Your task to perform on an android device: Search for usb-a on bestbuy.com, select the first entry, and add it to the cart. Image 0: 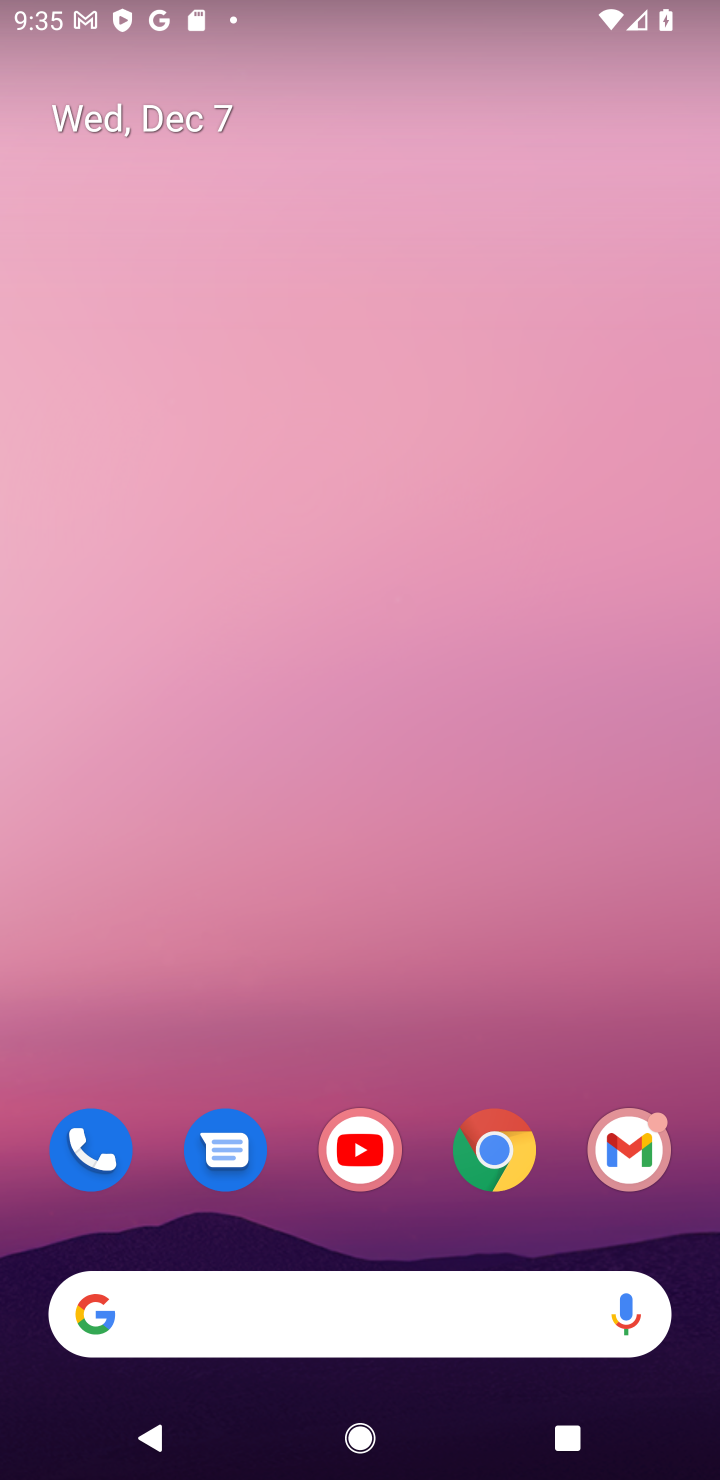
Step 0: click (496, 1150)
Your task to perform on an android device: Search for usb-a on bestbuy.com, select the first entry, and add it to the cart. Image 1: 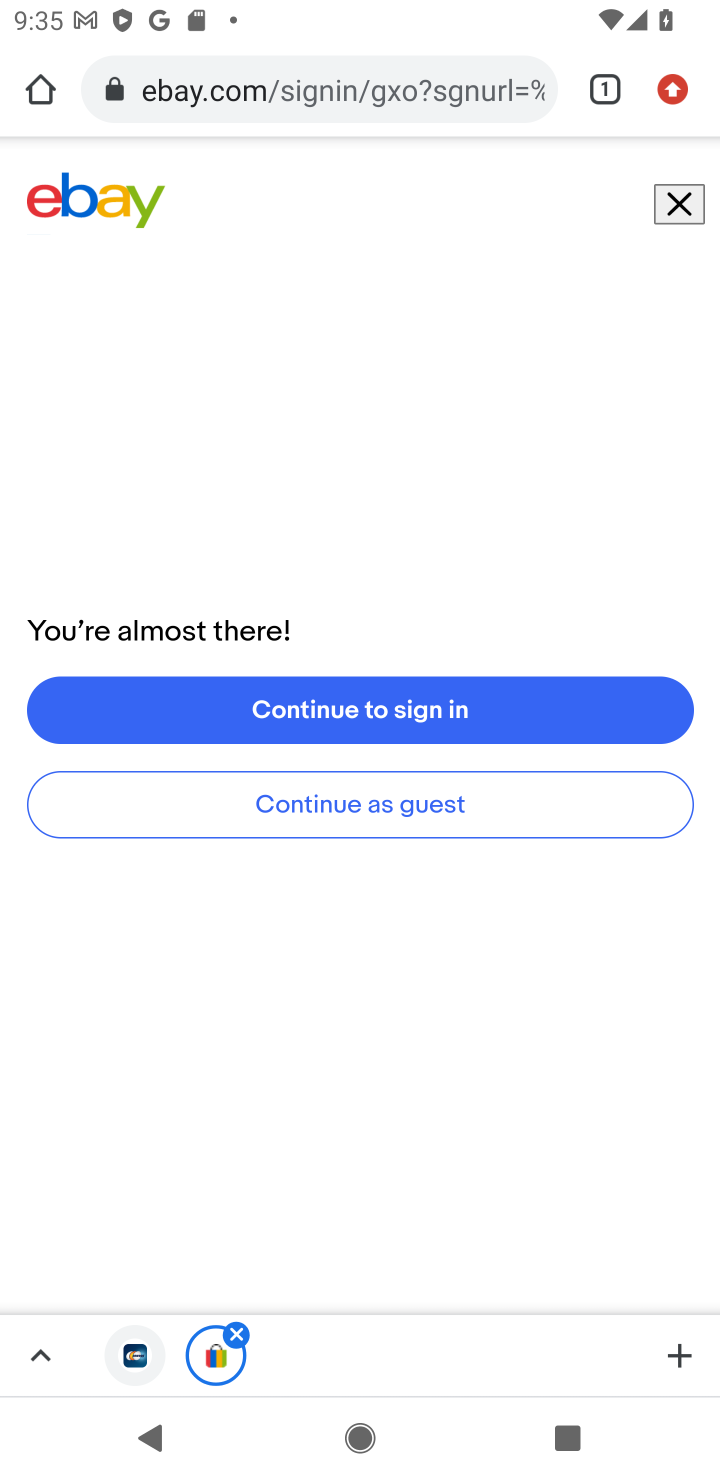
Step 1: click (350, 77)
Your task to perform on an android device: Search for usb-a on bestbuy.com, select the first entry, and add it to the cart. Image 2: 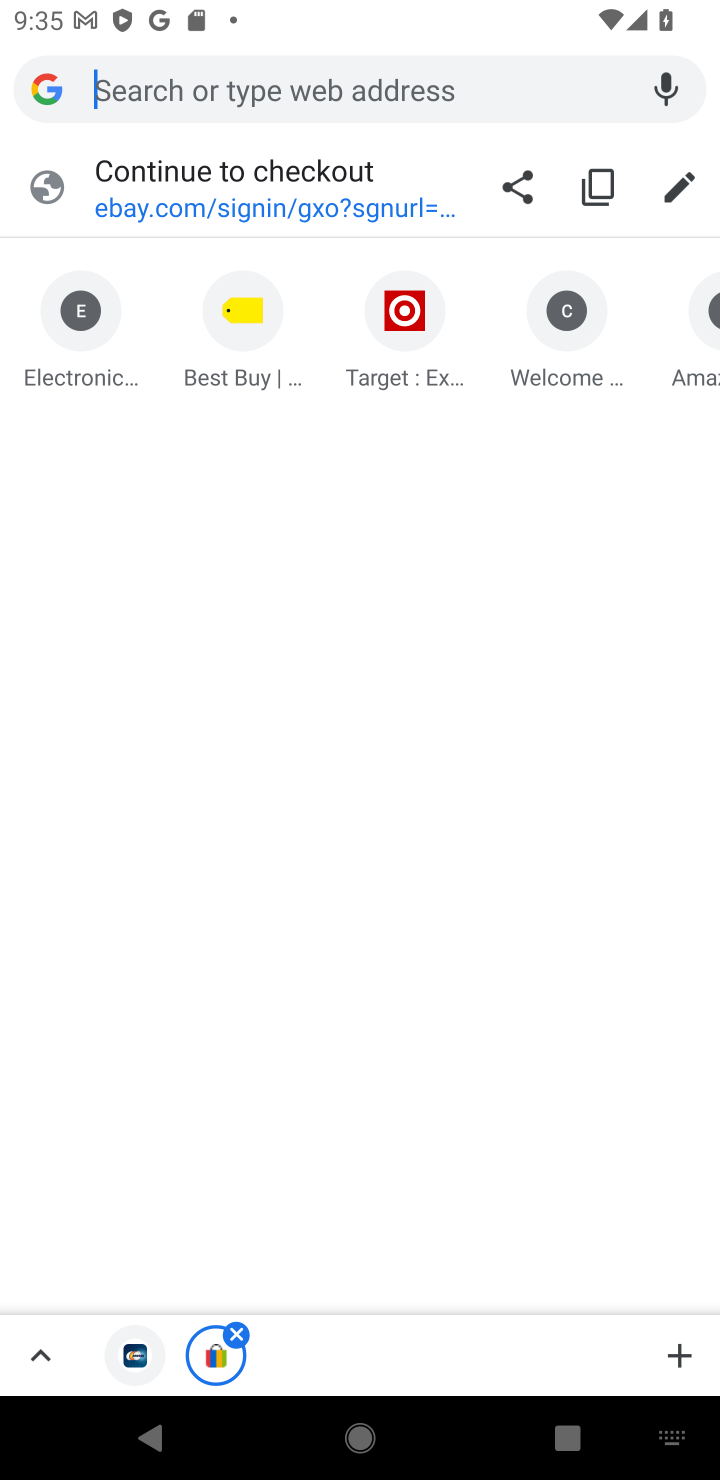
Step 2: type "bestbuy.com"
Your task to perform on an android device: Search for usb-a on bestbuy.com, select the first entry, and add it to the cart. Image 3: 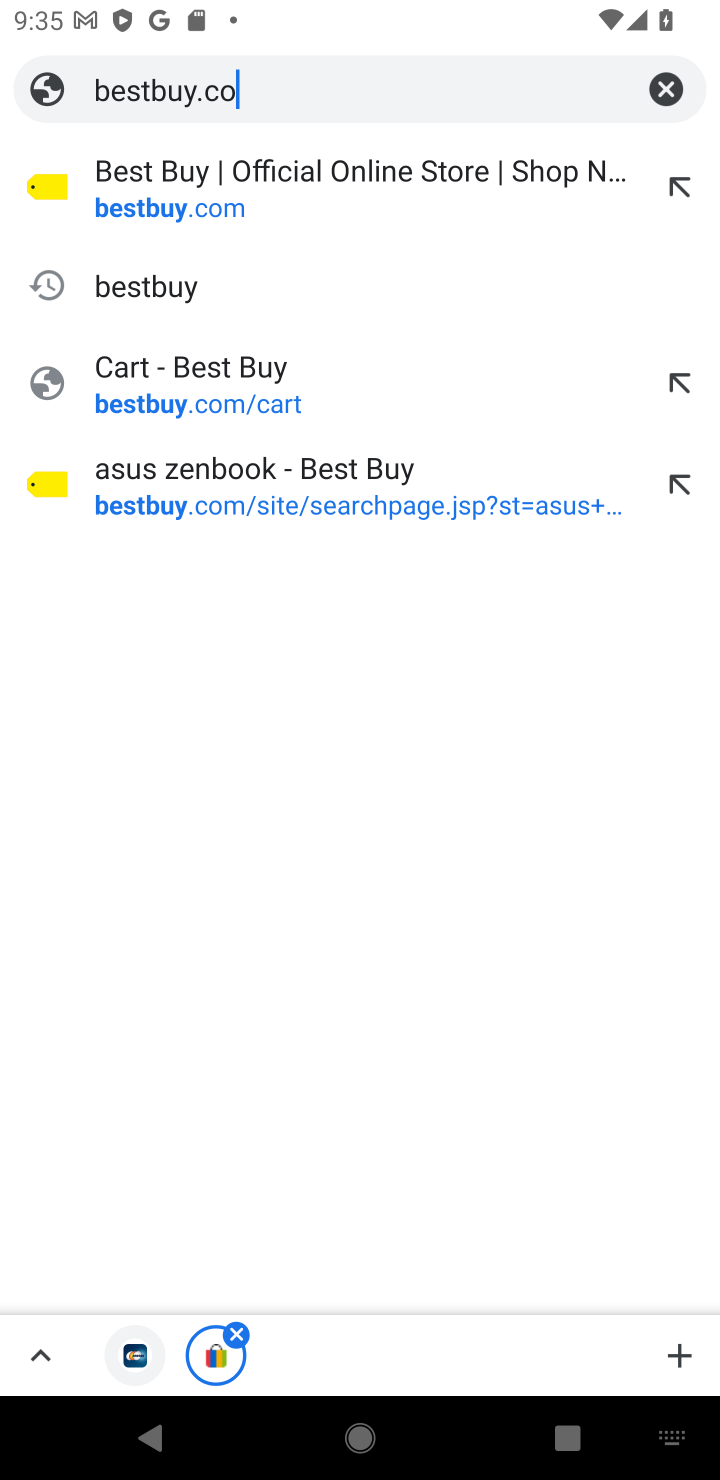
Step 3: press enter
Your task to perform on an android device: Search for usb-a on bestbuy.com, select the first entry, and add it to the cart. Image 4: 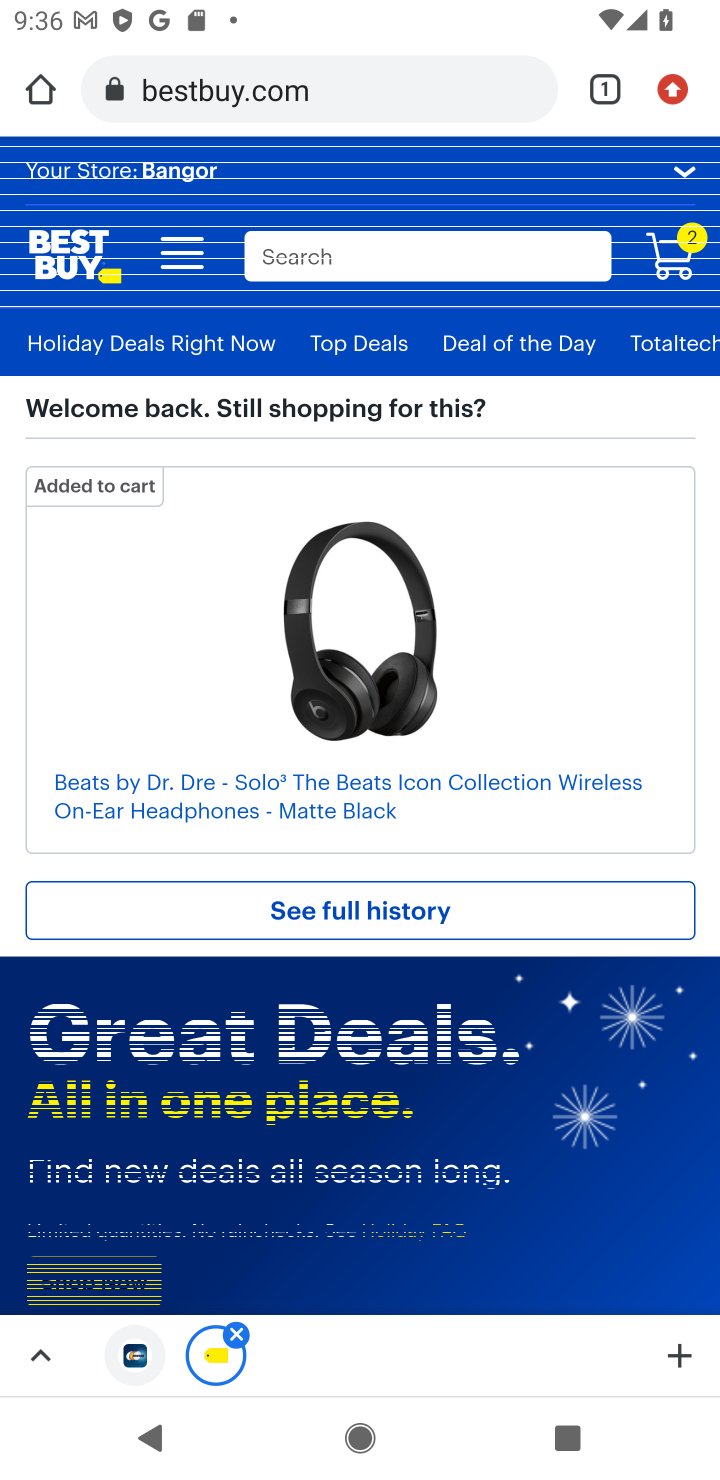
Step 4: click (401, 249)
Your task to perform on an android device: Search for usb-a on bestbuy.com, select the first entry, and add it to the cart. Image 5: 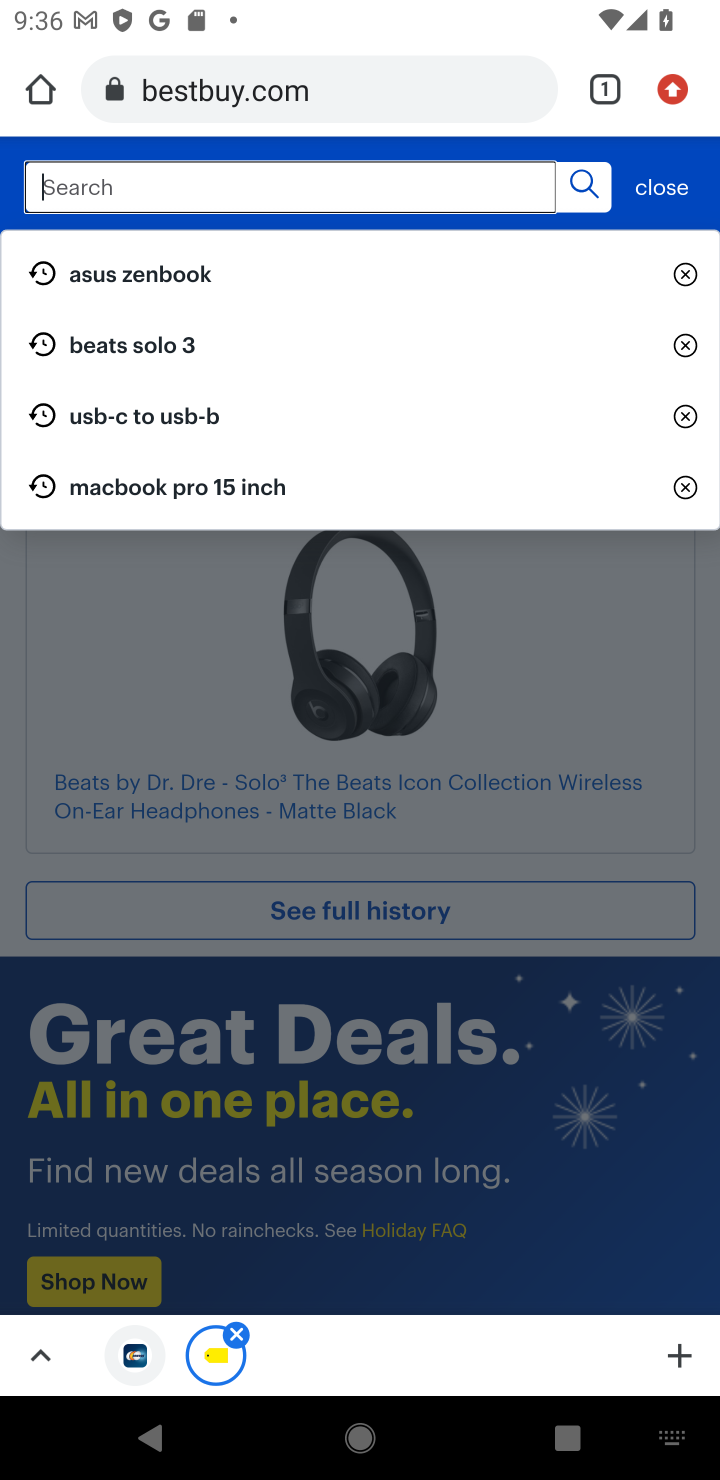
Step 5: type " usb-a"
Your task to perform on an android device: Search for usb-a on bestbuy.com, select the first entry, and add it to the cart. Image 6: 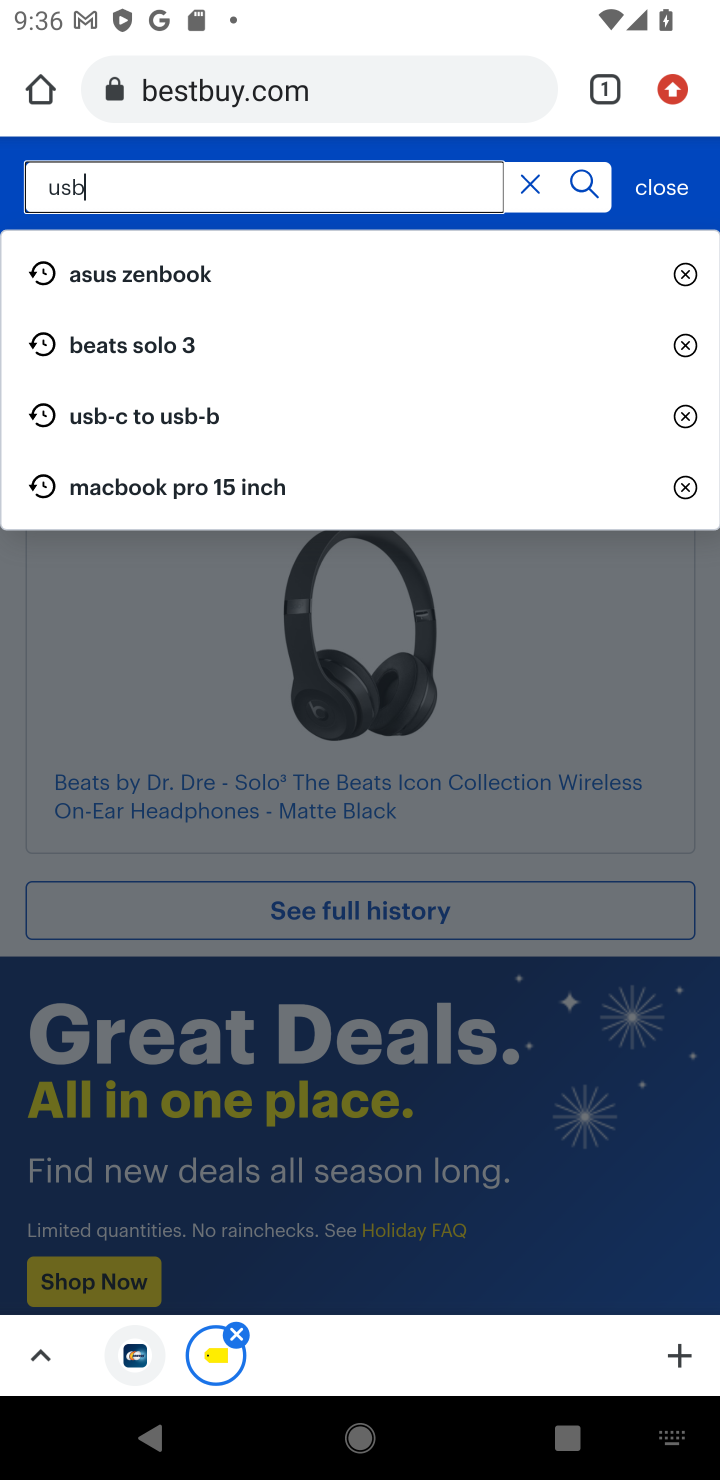
Step 6: press enter
Your task to perform on an android device: Search for usb-a on bestbuy.com, select the first entry, and add it to the cart. Image 7: 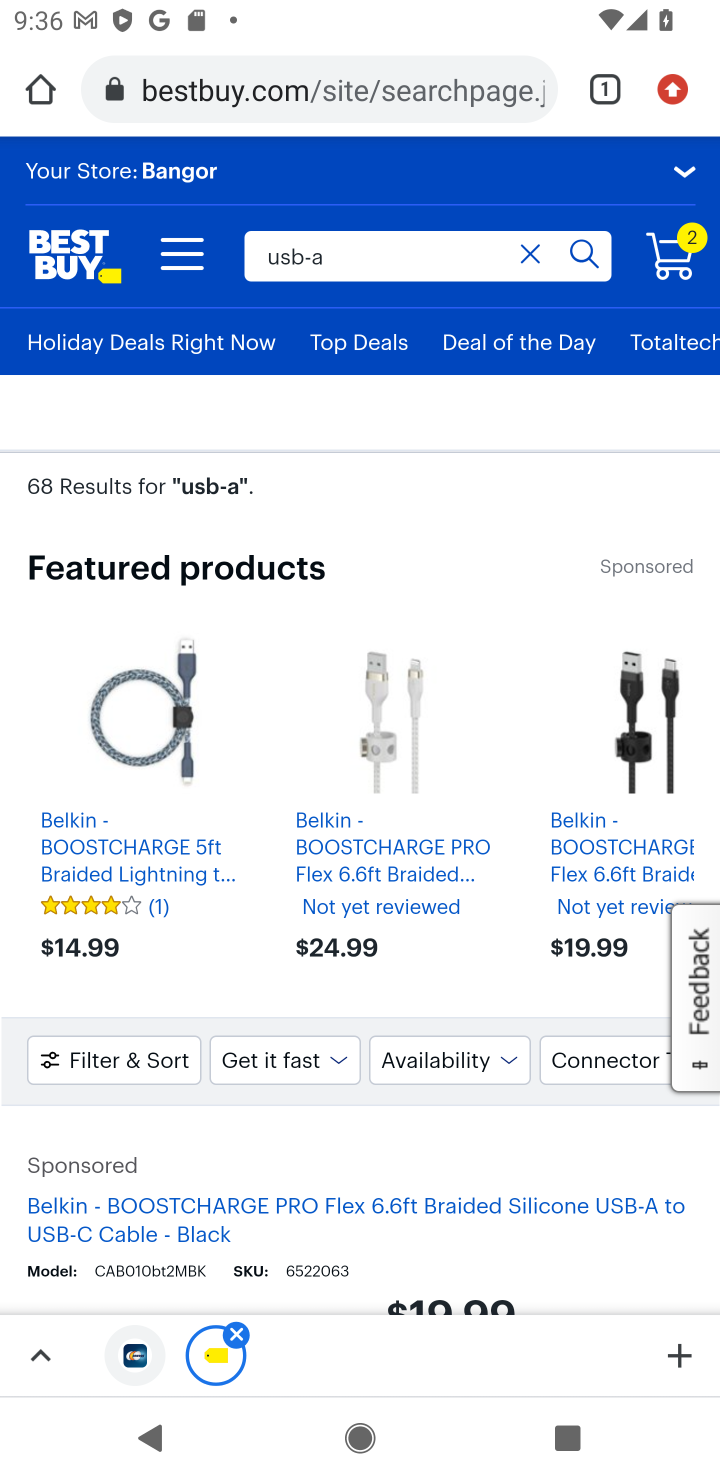
Step 7: drag from (616, 1184) to (595, 542)
Your task to perform on an android device: Search for usb-a on bestbuy.com, select the first entry, and add it to the cart. Image 8: 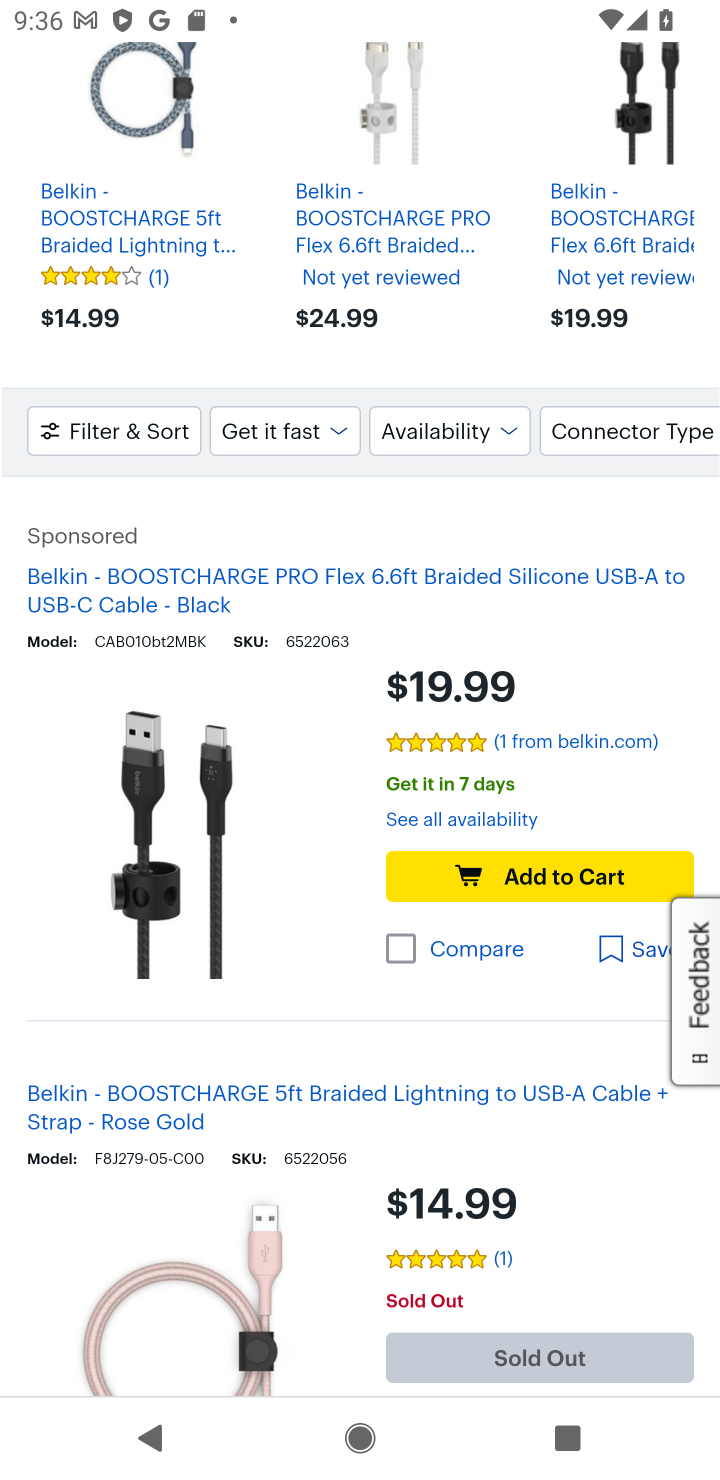
Step 8: click (154, 1275)
Your task to perform on an android device: Search for usb-a on bestbuy.com, select the first entry, and add it to the cart. Image 9: 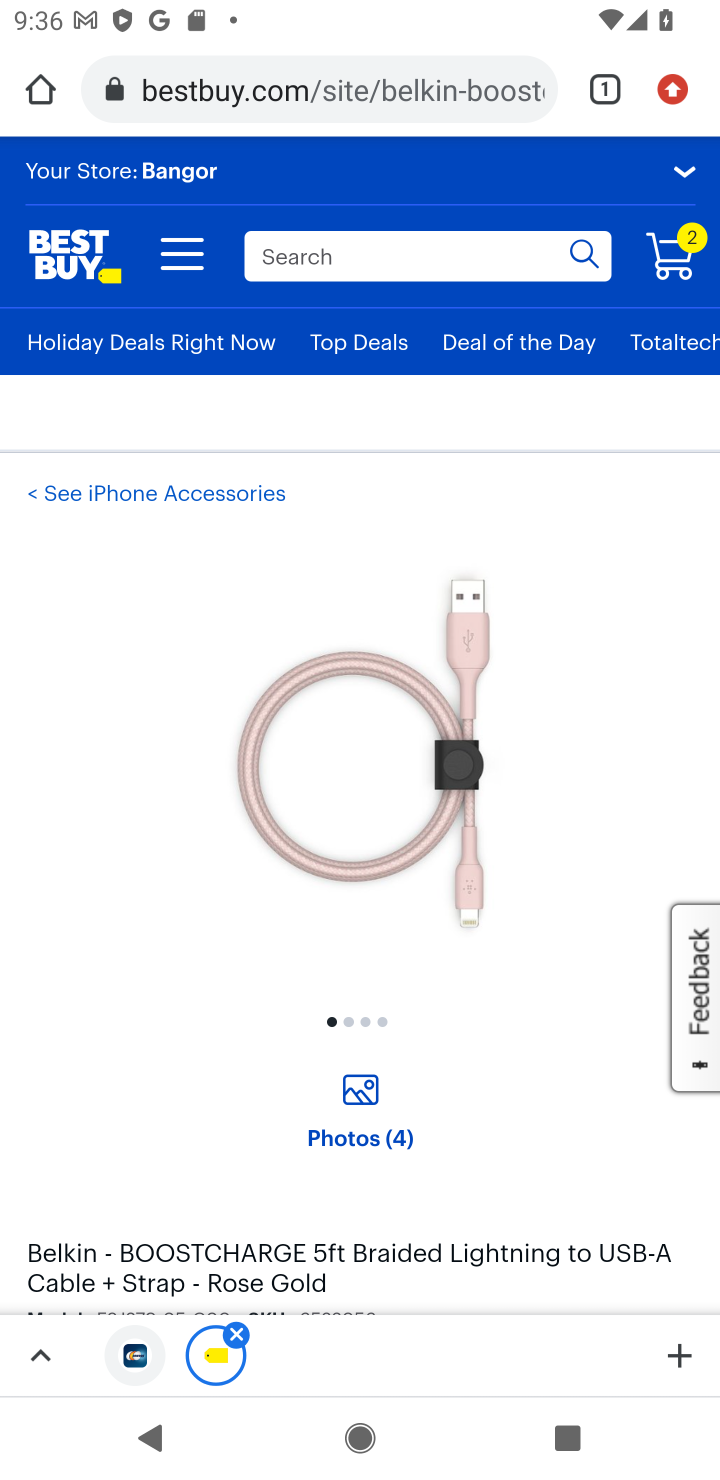
Step 9: drag from (532, 1086) to (563, 316)
Your task to perform on an android device: Search for usb-a on bestbuy.com, select the first entry, and add it to the cart. Image 10: 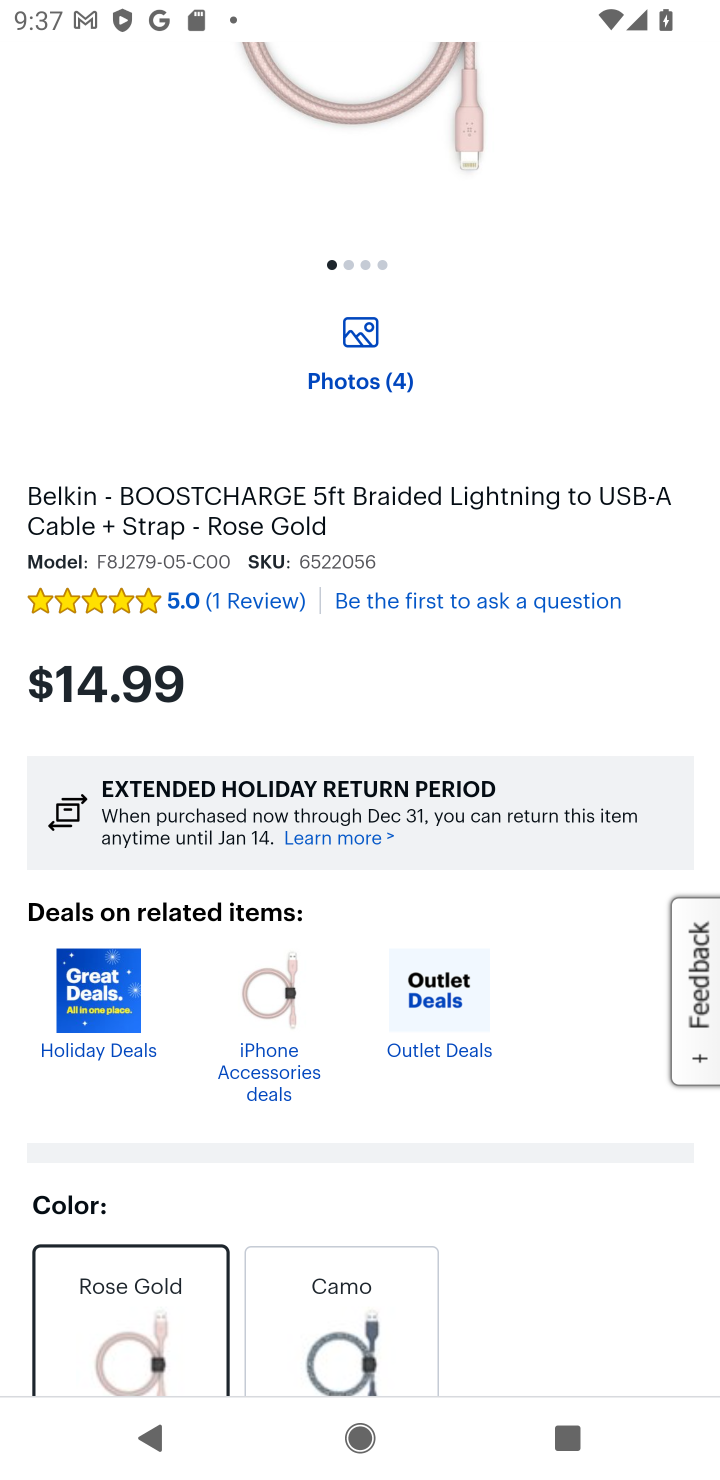
Step 10: drag from (603, 1139) to (554, 415)
Your task to perform on an android device: Search for usb-a on bestbuy.com, select the first entry, and add it to the cart. Image 11: 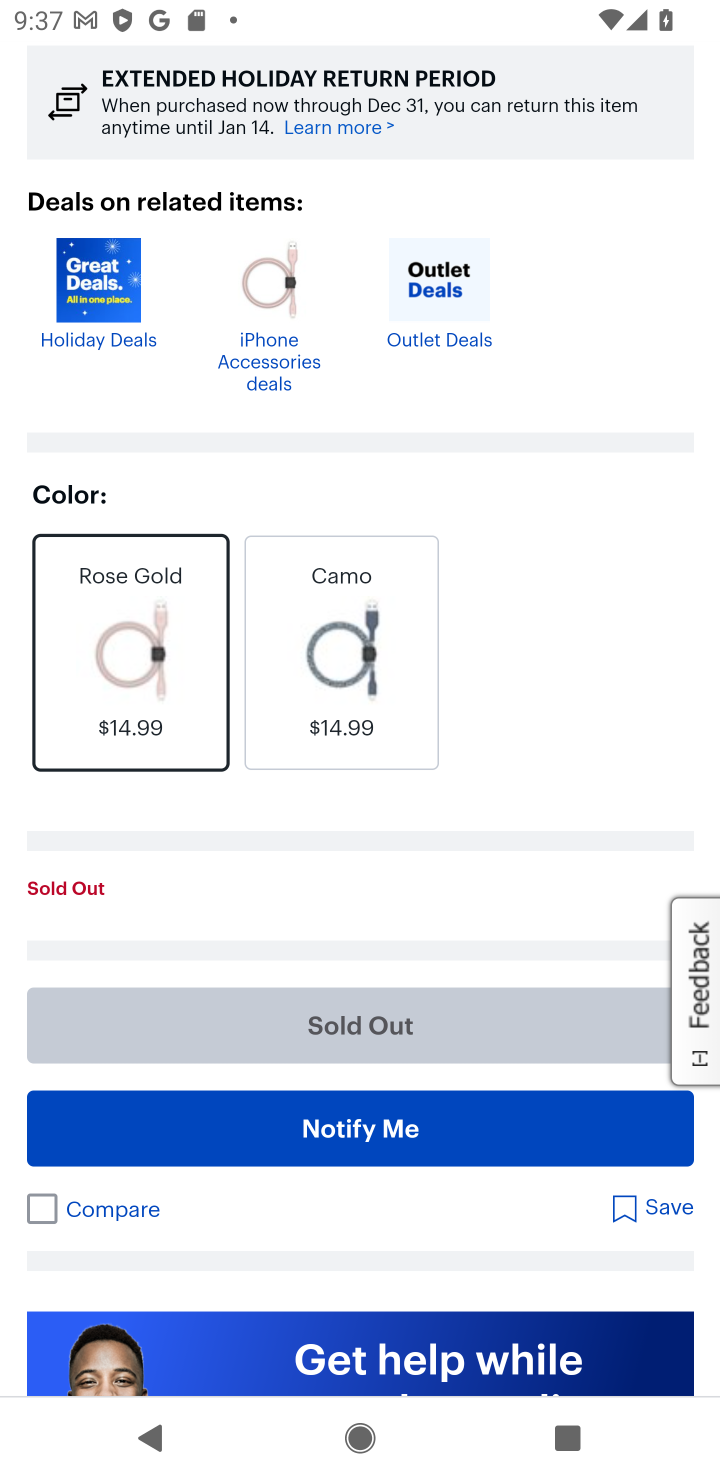
Step 11: press back button
Your task to perform on an android device: Search for usb-a on bestbuy.com, select the first entry, and add it to the cart. Image 12: 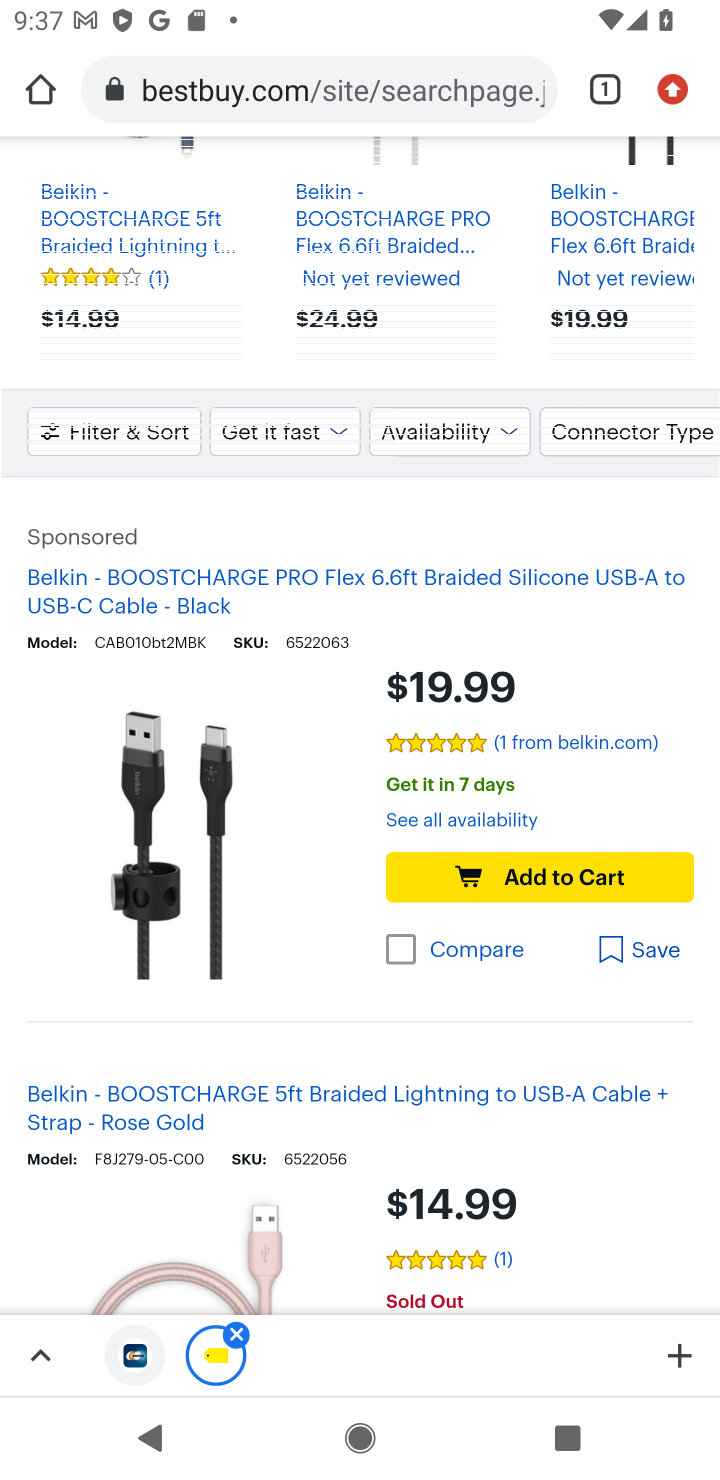
Step 12: drag from (278, 1162) to (281, 618)
Your task to perform on an android device: Search for usb-a on bestbuy.com, select the first entry, and add it to the cart. Image 13: 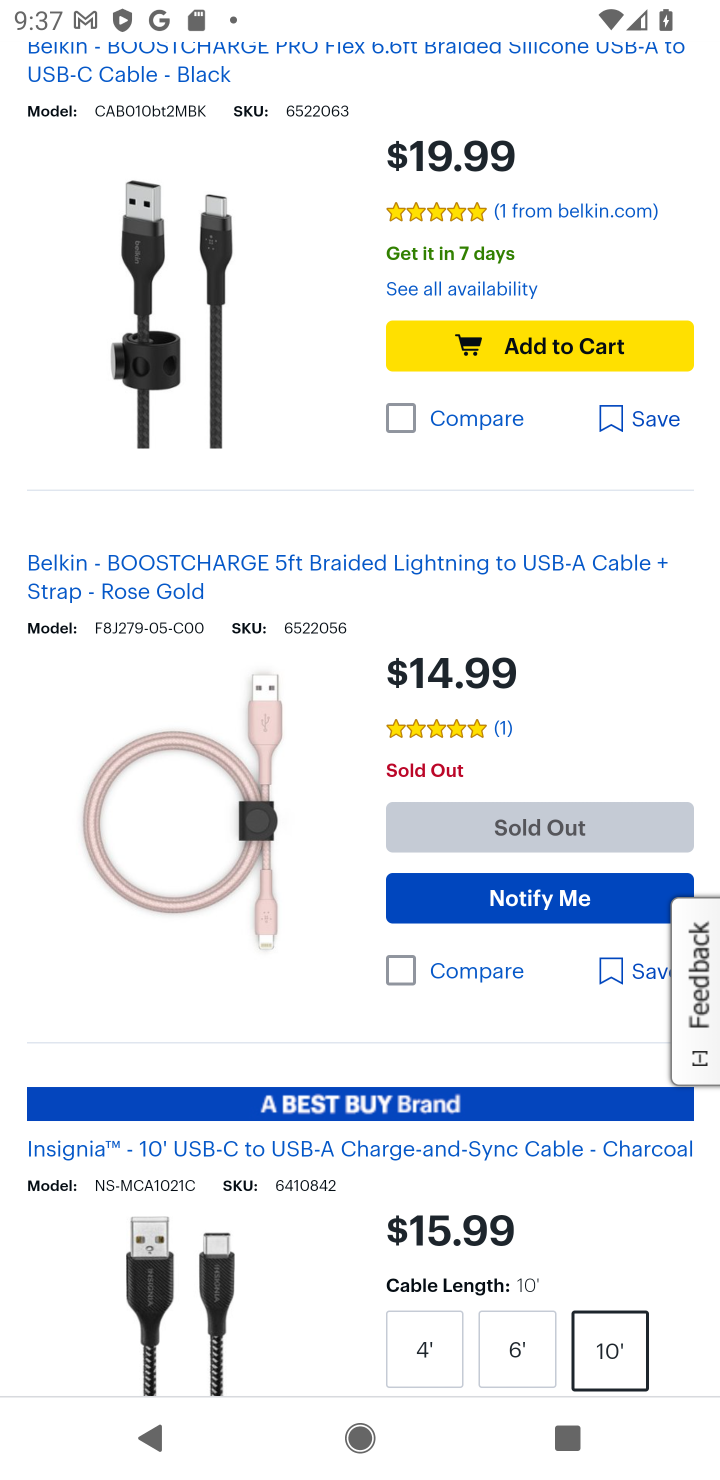
Step 13: click (180, 295)
Your task to perform on an android device: Search for usb-a on bestbuy.com, select the first entry, and add it to the cart. Image 14: 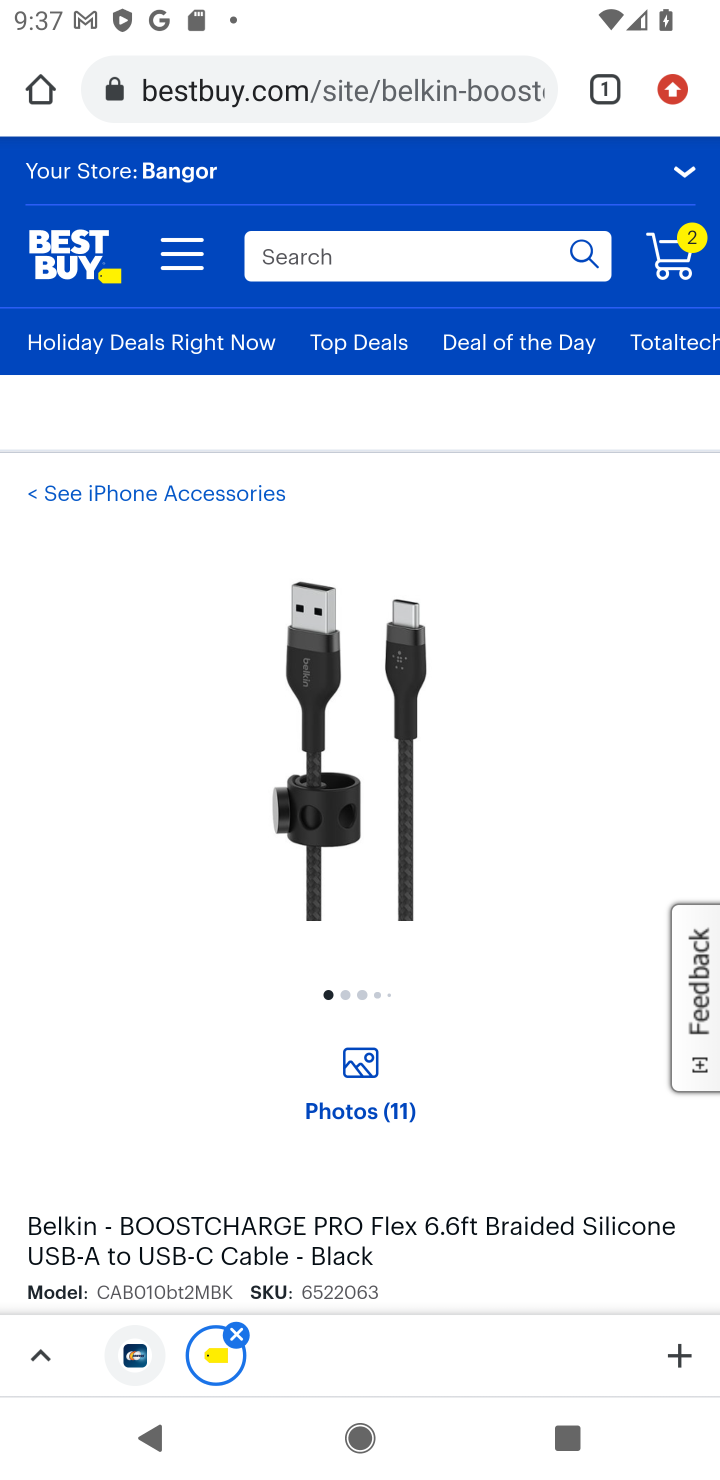
Step 14: drag from (560, 1033) to (503, 430)
Your task to perform on an android device: Search for usb-a on bestbuy.com, select the first entry, and add it to the cart. Image 15: 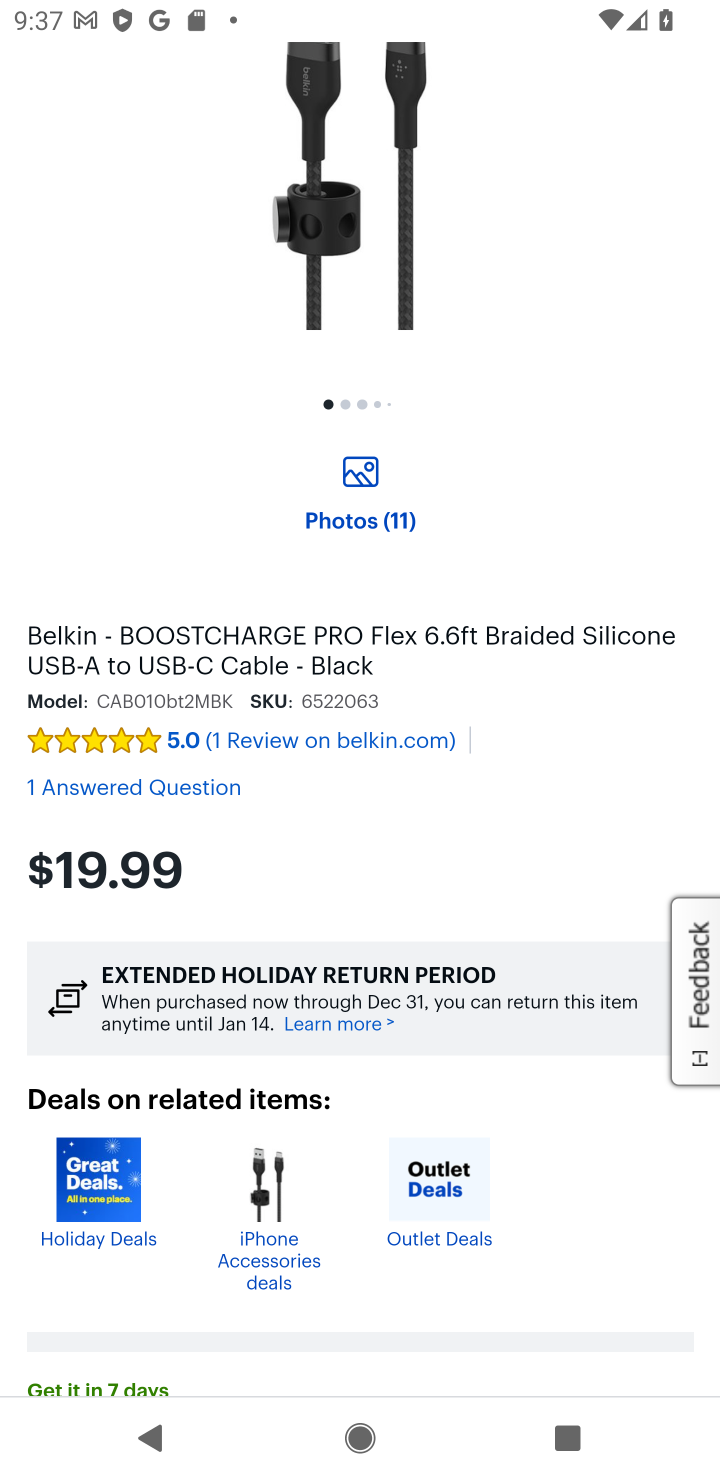
Step 15: drag from (647, 1061) to (611, 453)
Your task to perform on an android device: Search for usb-a on bestbuy.com, select the first entry, and add it to the cart. Image 16: 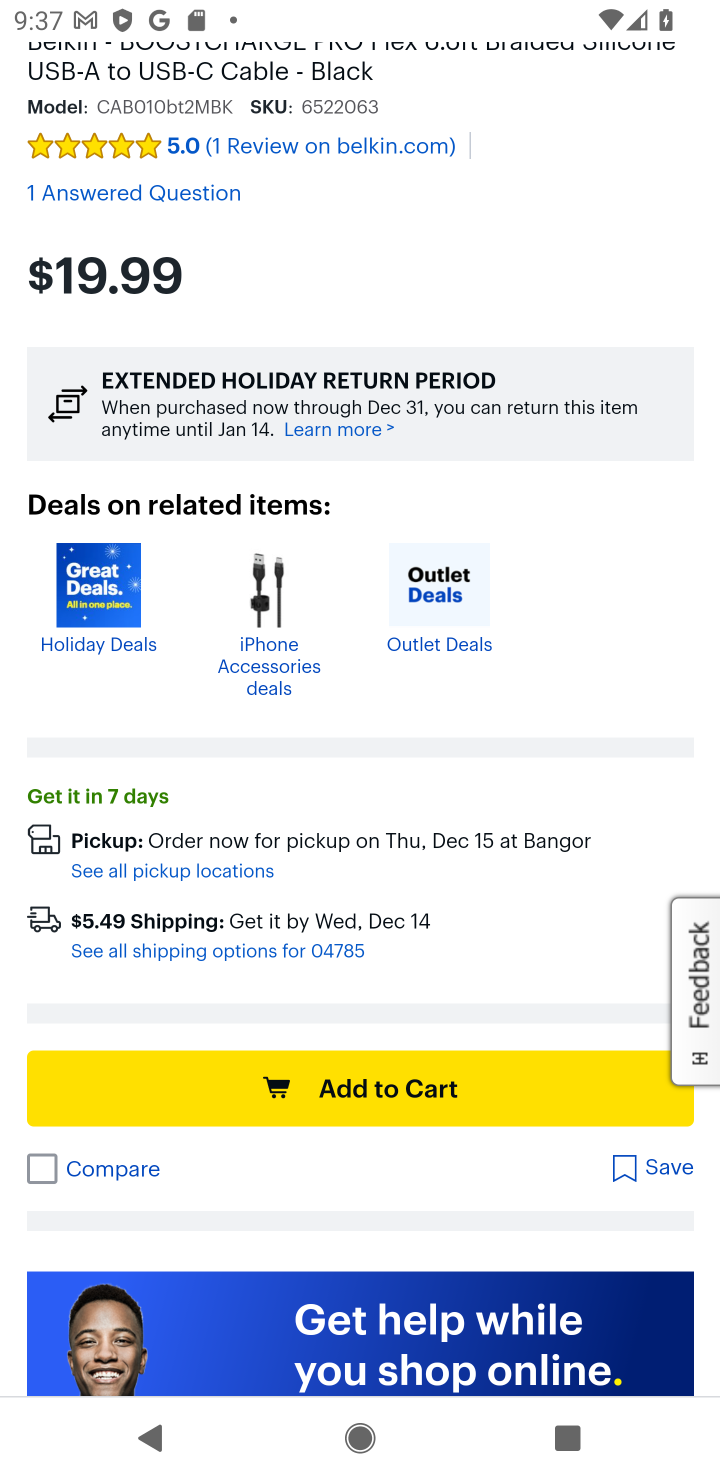
Step 16: click (412, 1084)
Your task to perform on an android device: Search for usb-a on bestbuy.com, select the first entry, and add it to the cart. Image 17: 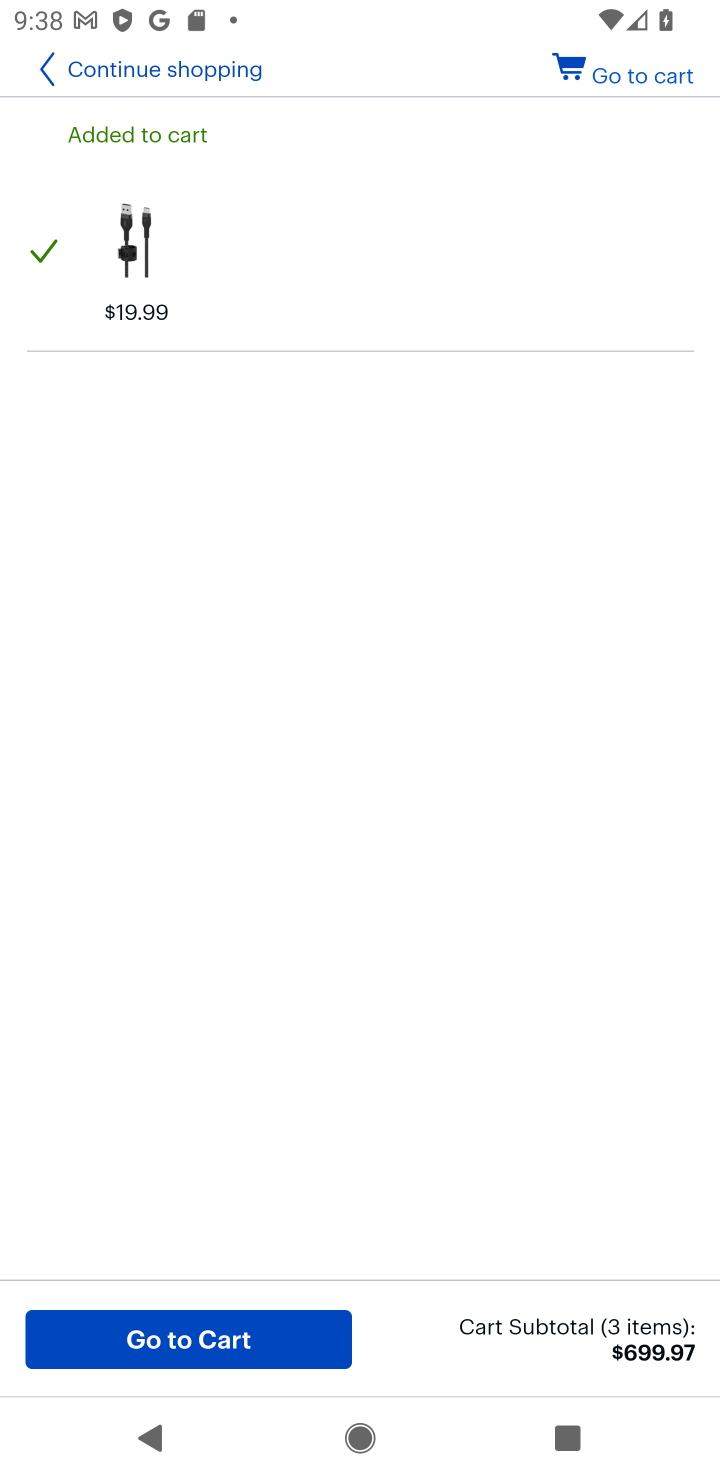
Step 17: click (204, 1331)
Your task to perform on an android device: Search for usb-a on bestbuy.com, select the first entry, and add it to the cart. Image 18: 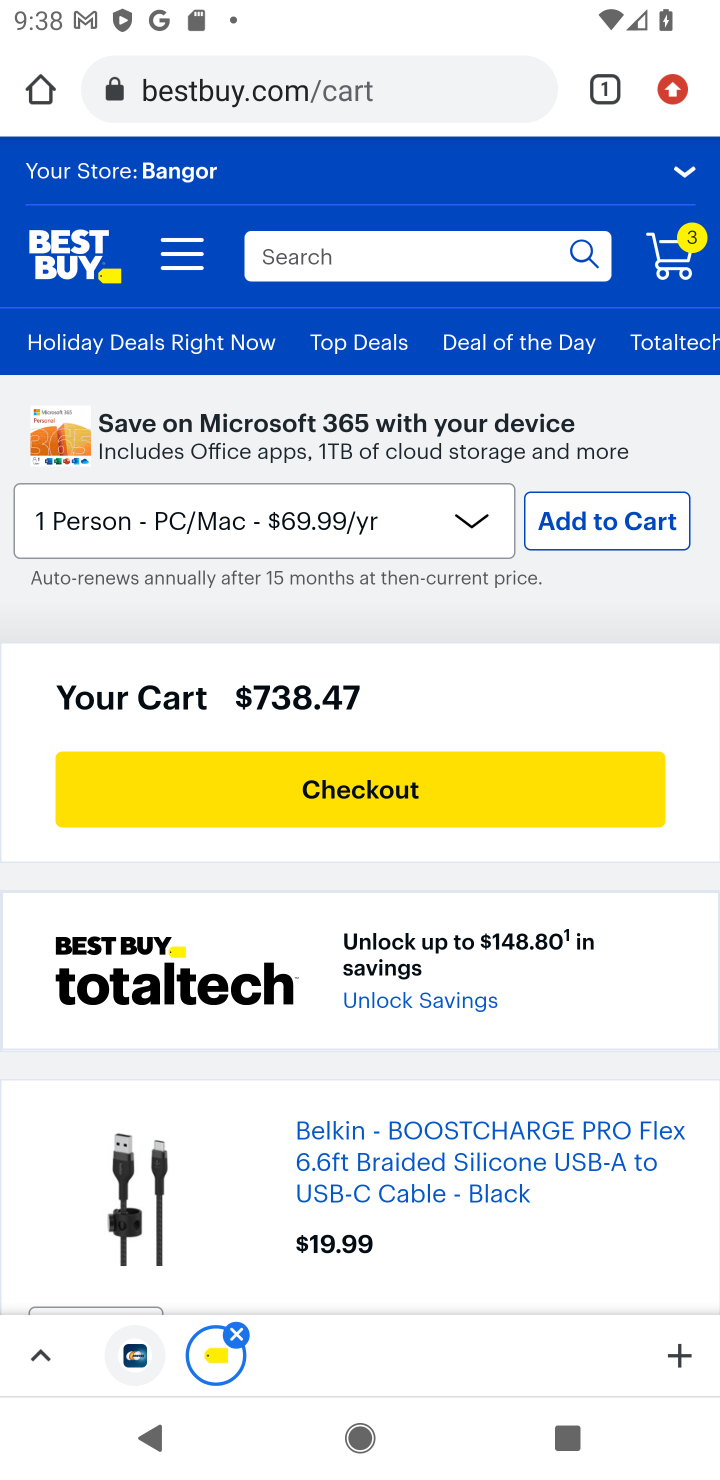
Step 18: task complete